Your task to perform on an android device: change the clock style Image 0: 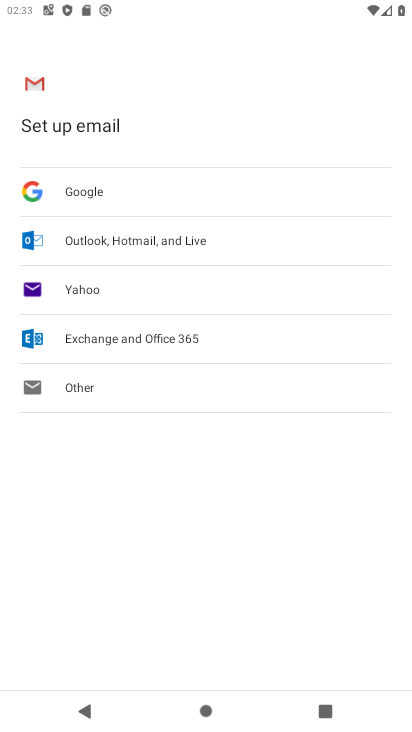
Step 0: press home button
Your task to perform on an android device: change the clock style Image 1: 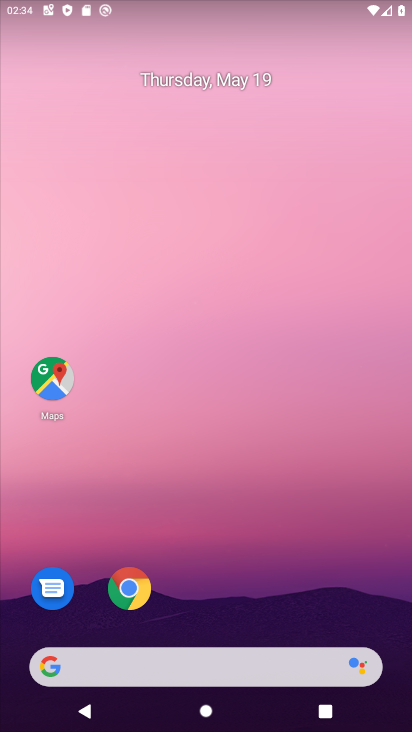
Step 1: drag from (233, 469) to (215, 91)
Your task to perform on an android device: change the clock style Image 2: 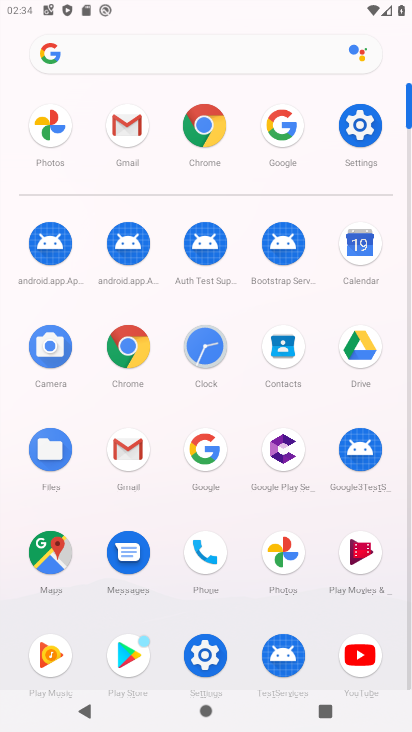
Step 2: click (209, 347)
Your task to perform on an android device: change the clock style Image 3: 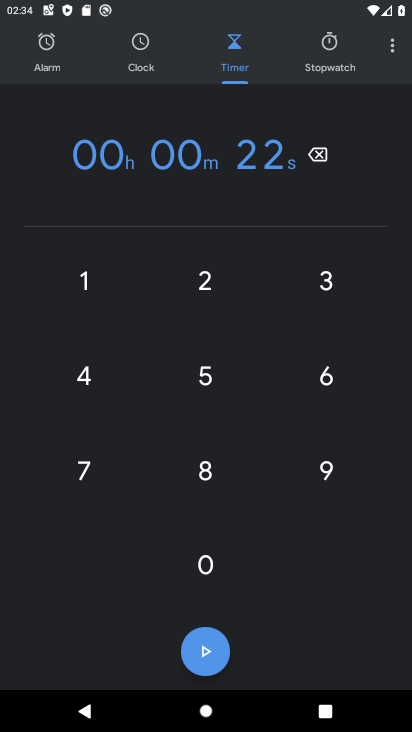
Step 3: click (384, 48)
Your task to perform on an android device: change the clock style Image 4: 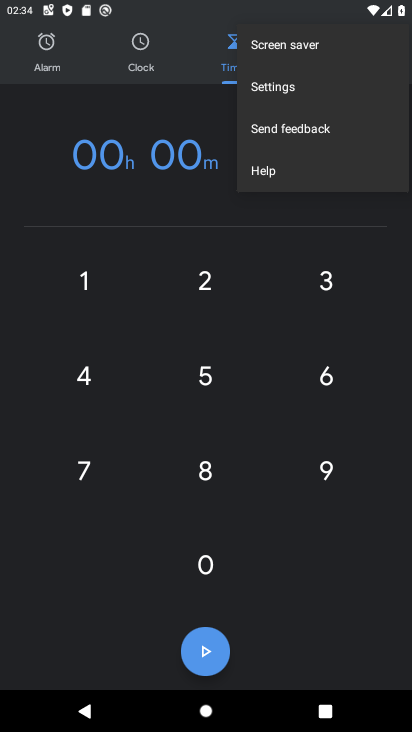
Step 4: click (276, 92)
Your task to perform on an android device: change the clock style Image 5: 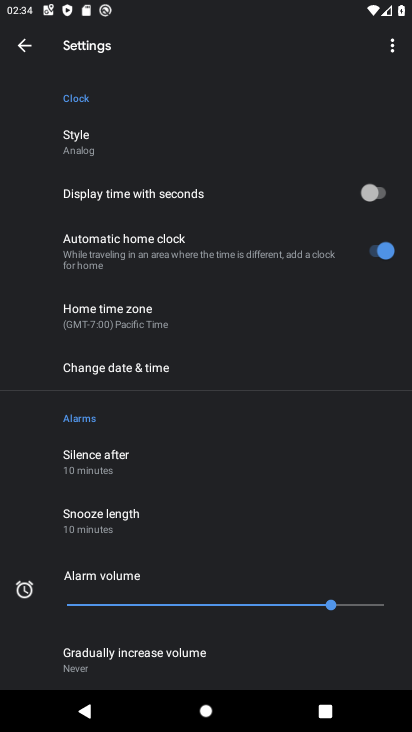
Step 5: click (160, 155)
Your task to perform on an android device: change the clock style Image 6: 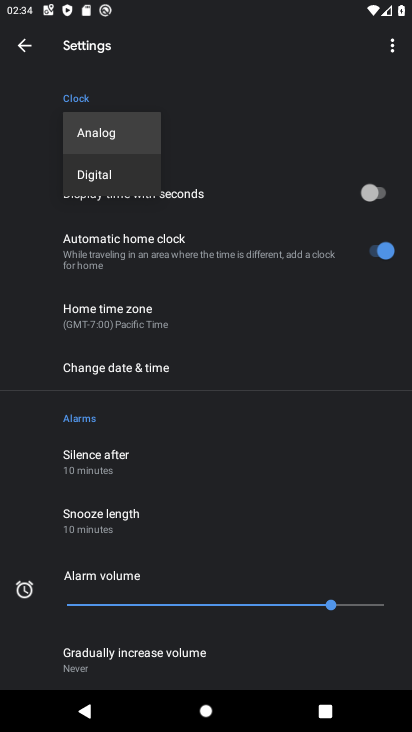
Step 6: click (119, 176)
Your task to perform on an android device: change the clock style Image 7: 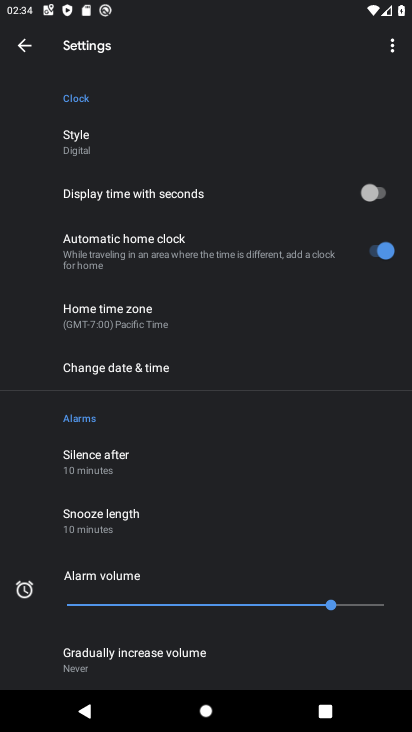
Step 7: task complete